Your task to perform on an android device: set the stopwatch Image 0: 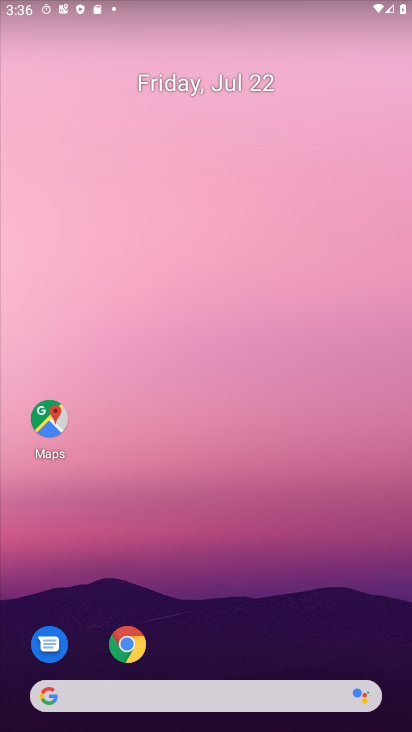
Step 0: press home button
Your task to perform on an android device: set the stopwatch Image 1: 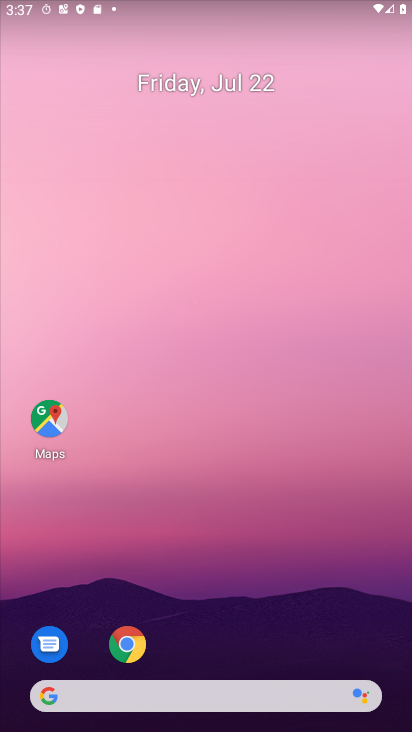
Step 1: drag from (254, 623) to (220, 174)
Your task to perform on an android device: set the stopwatch Image 2: 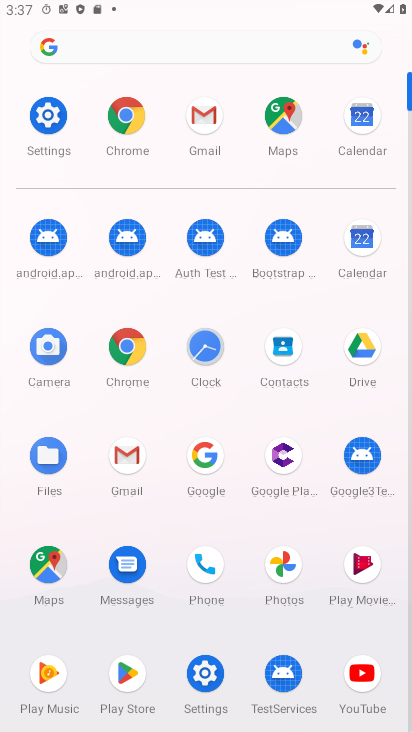
Step 2: click (208, 349)
Your task to perform on an android device: set the stopwatch Image 3: 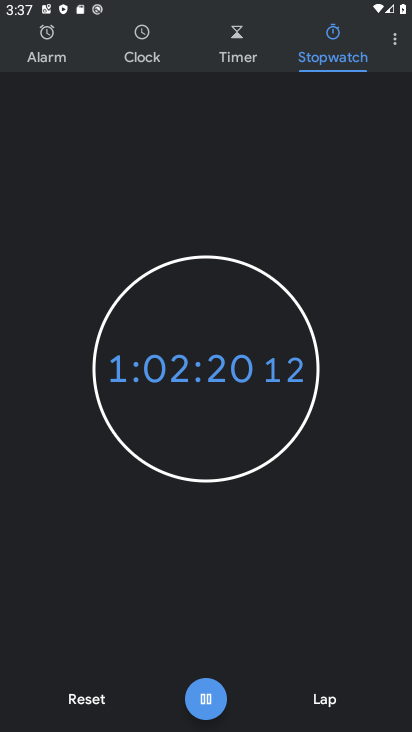
Step 3: task complete